Your task to perform on an android device: stop showing notifications on the lock screen Image 0: 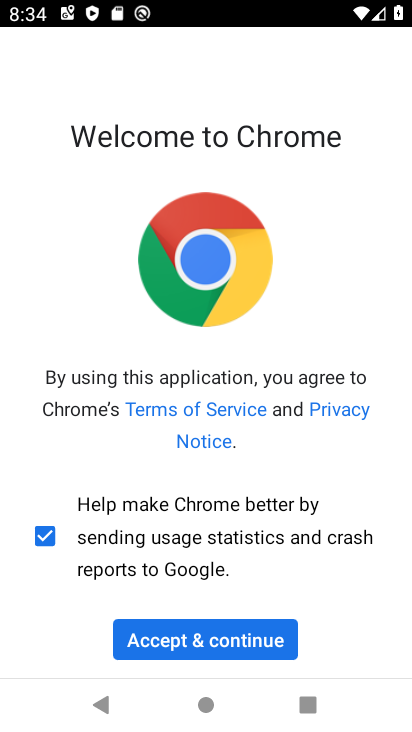
Step 0: press home button
Your task to perform on an android device: stop showing notifications on the lock screen Image 1: 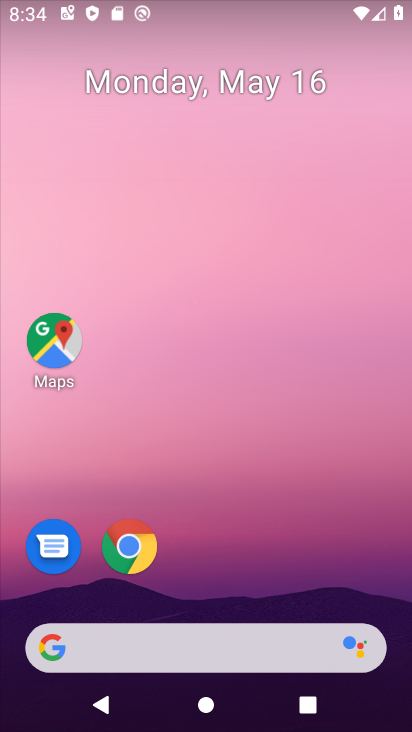
Step 1: drag from (286, 674) to (310, 82)
Your task to perform on an android device: stop showing notifications on the lock screen Image 2: 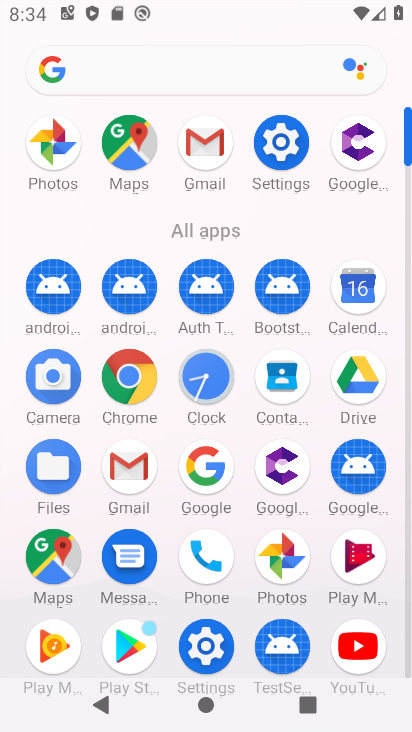
Step 2: click (273, 140)
Your task to perform on an android device: stop showing notifications on the lock screen Image 3: 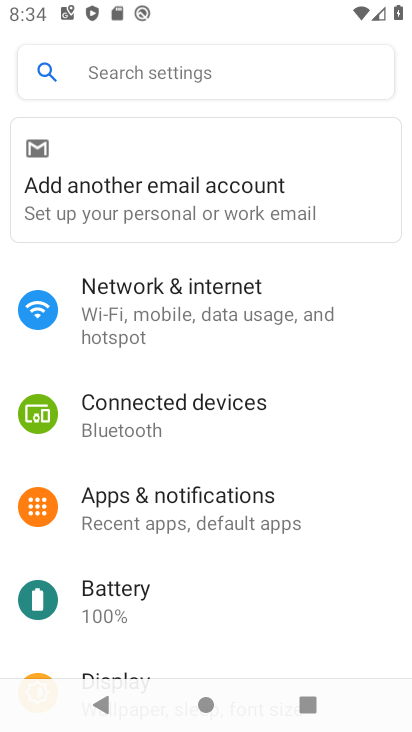
Step 3: click (145, 80)
Your task to perform on an android device: stop showing notifications on the lock screen Image 4: 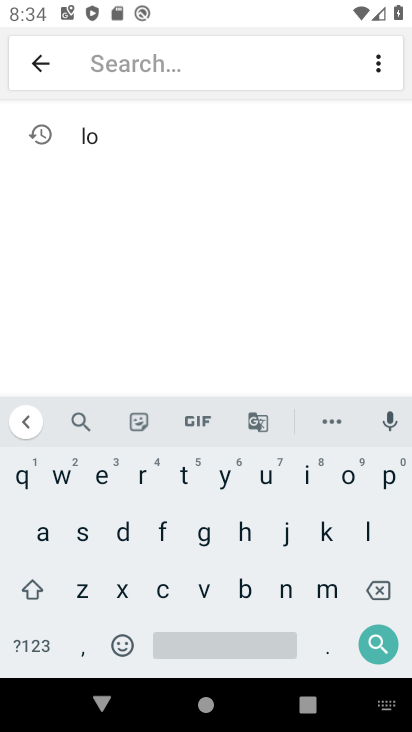
Step 4: click (289, 607)
Your task to perform on an android device: stop showing notifications on the lock screen Image 5: 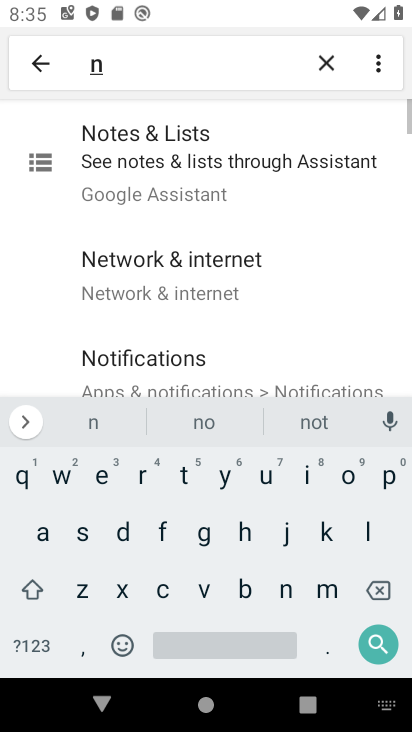
Step 5: click (349, 479)
Your task to perform on an android device: stop showing notifications on the lock screen Image 6: 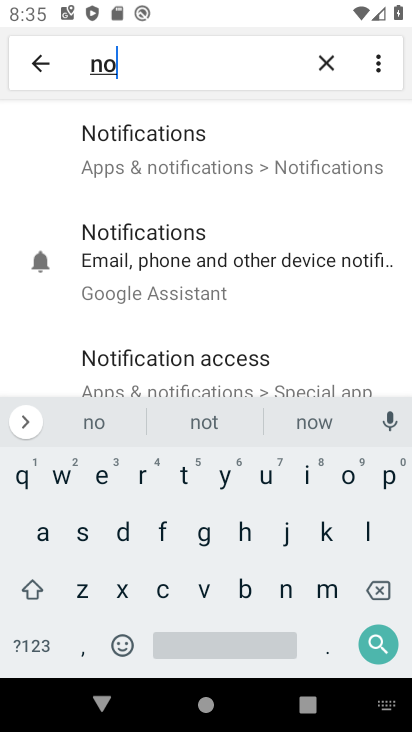
Step 6: click (157, 166)
Your task to perform on an android device: stop showing notifications on the lock screen Image 7: 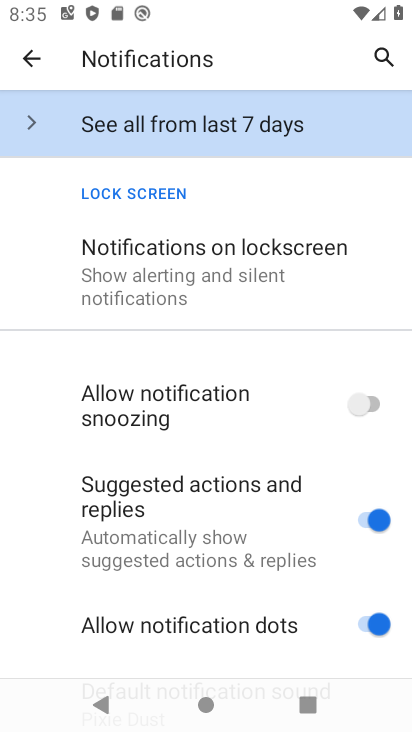
Step 7: click (142, 257)
Your task to perform on an android device: stop showing notifications on the lock screen Image 8: 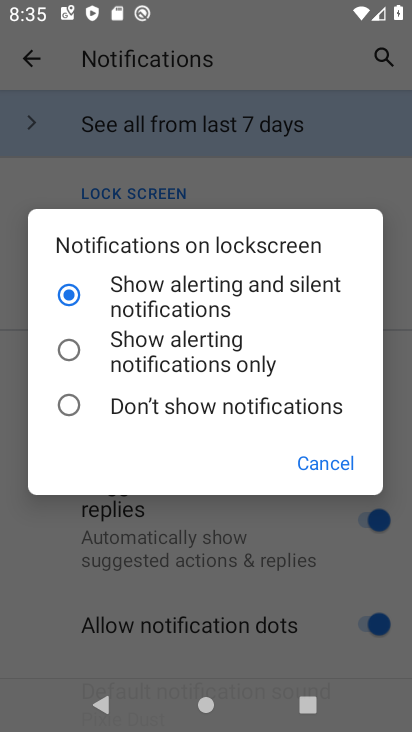
Step 8: click (116, 405)
Your task to perform on an android device: stop showing notifications on the lock screen Image 9: 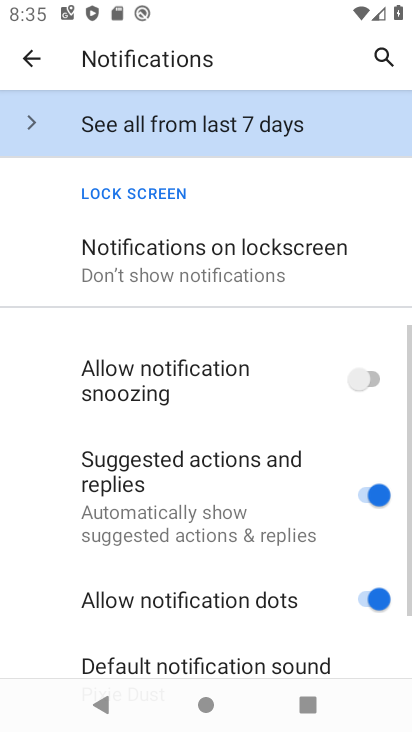
Step 9: task complete